Your task to perform on an android device: toggle notification dots Image 0: 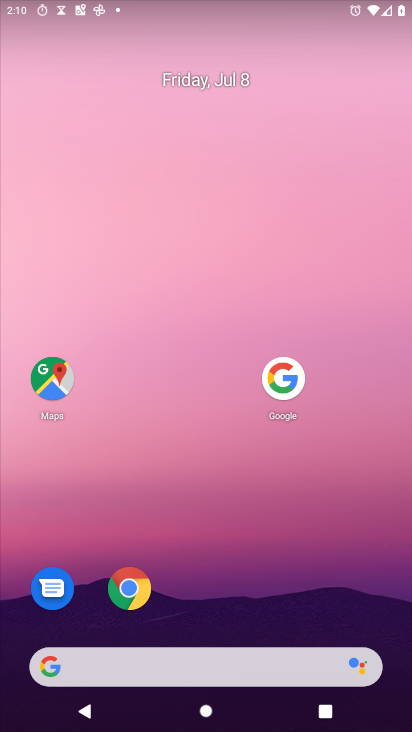
Step 0: drag from (177, 671) to (255, 81)
Your task to perform on an android device: toggle notification dots Image 1: 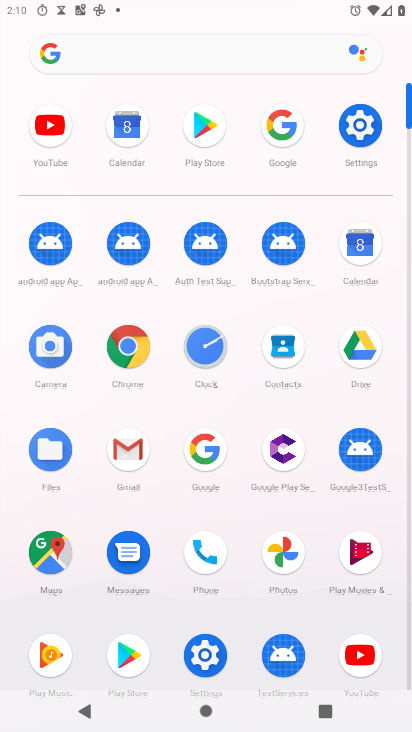
Step 1: click (352, 129)
Your task to perform on an android device: toggle notification dots Image 2: 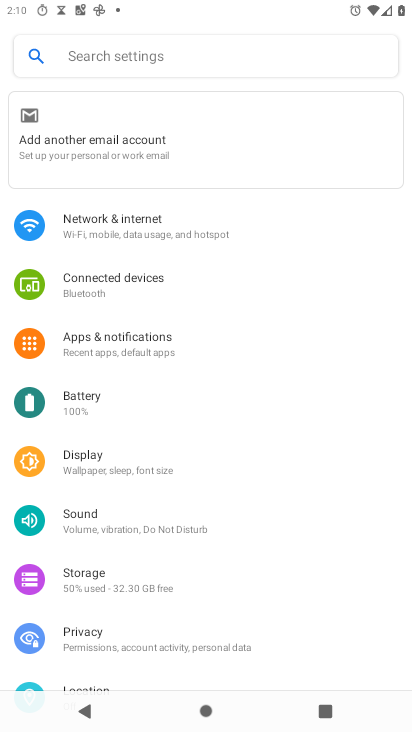
Step 2: click (151, 337)
Your task to perform on an android device: toggle notification dots Image 3: 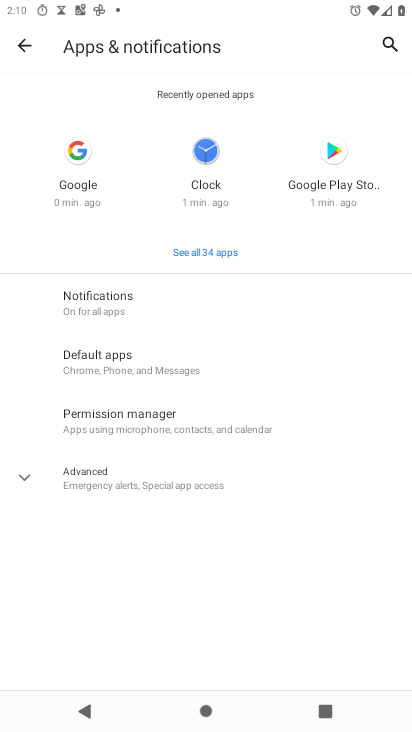
Step 3: click (110, 308)
Your task to perform on an android device: toggle notification dots Image 4: 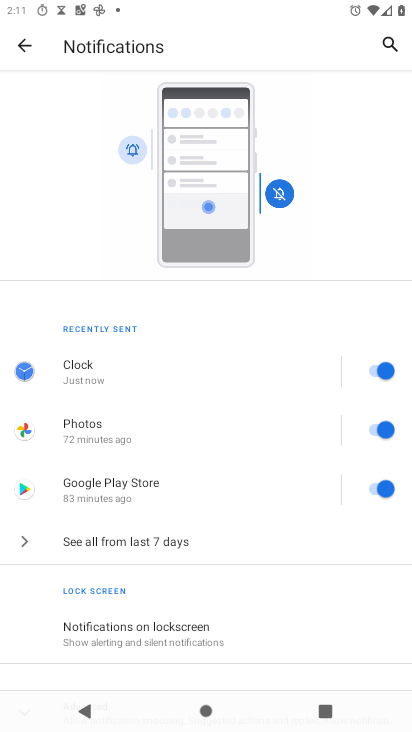
Step 4: drag from (230, 613) to (288, 140)
Your task to perform on an android device: toggle notification dots Image 5: 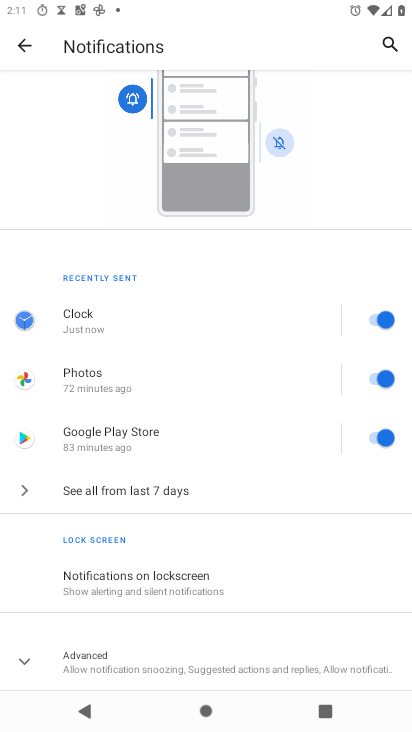
Step 5: click (136, 661)
Your task to perform on an android device: toggle notification dots Image 6: 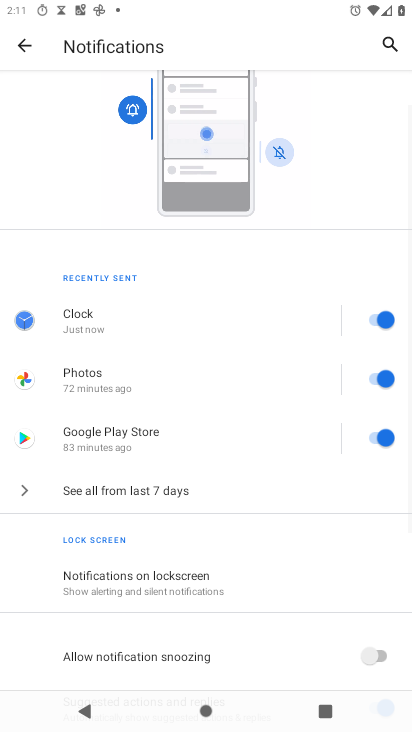
Step 6: drag from (206, 644) to (284, 98)
Your task to perform on an android device: toggle notification dots Image 7: 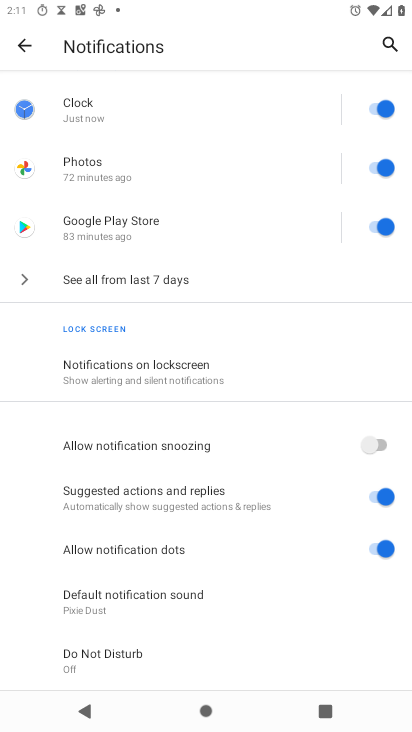
Step 7: click (372, 548)
Your task to perform on an android device: toggle notification dots Image 8: 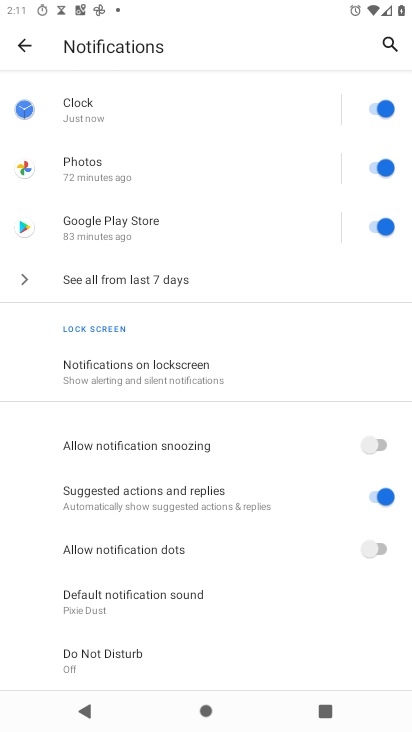
Step 8: task complete